Your task to perform on an android device: refresh tabs in the chrome app Image 0: 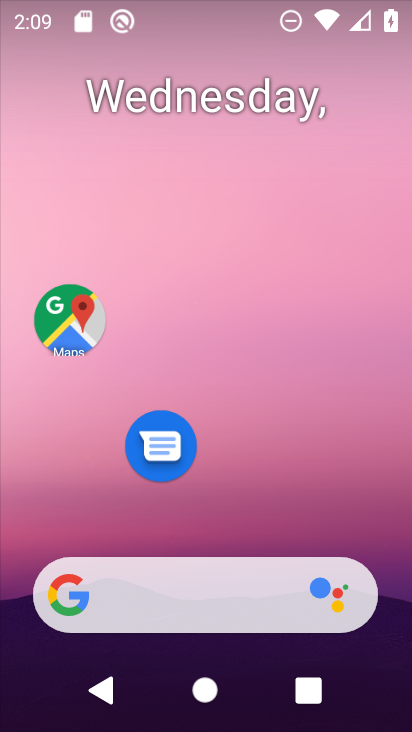
Step 0: drag from (334, 526) to (272, 83)
Your task to perform on an android device: refresh tabs in the chrome app Image 1: 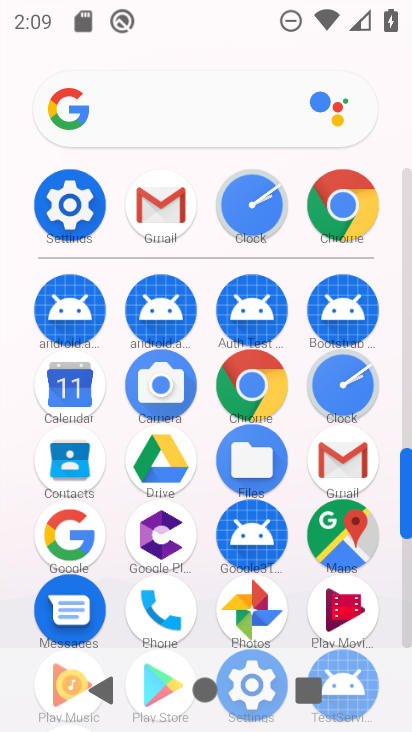
Step 1: click (338, 201)
Your task to perform on an android device: refresh tabs in the chrome app Image 2: 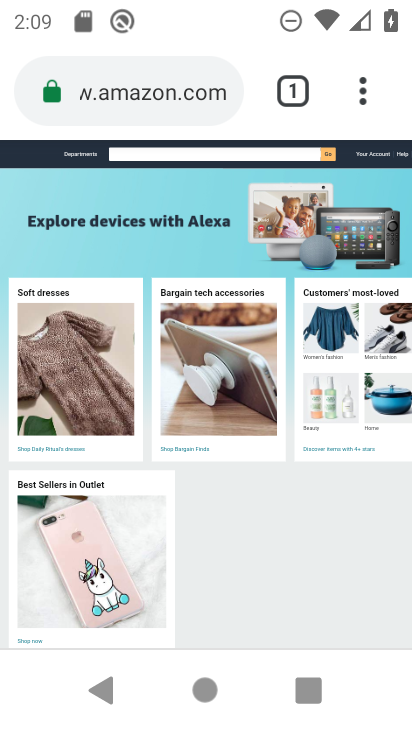
Step 2: click (353, 98)
Your task to perform on an android device: refresh tabs in the chrome app Image 3: 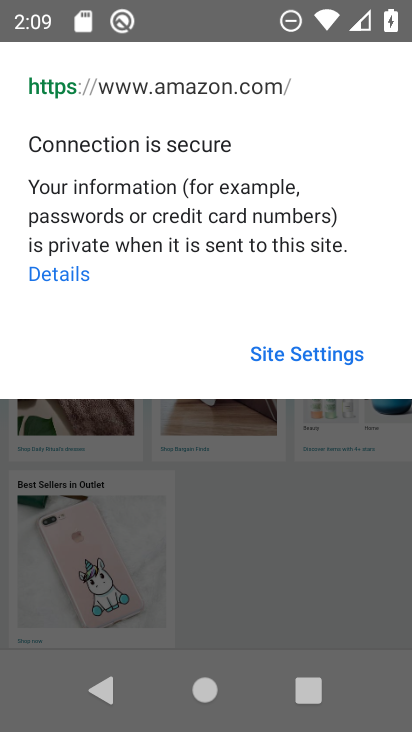
Step 3: click (164, 462)
Your task to perform on an android device: refresh tabs in the chrome app Image 4: 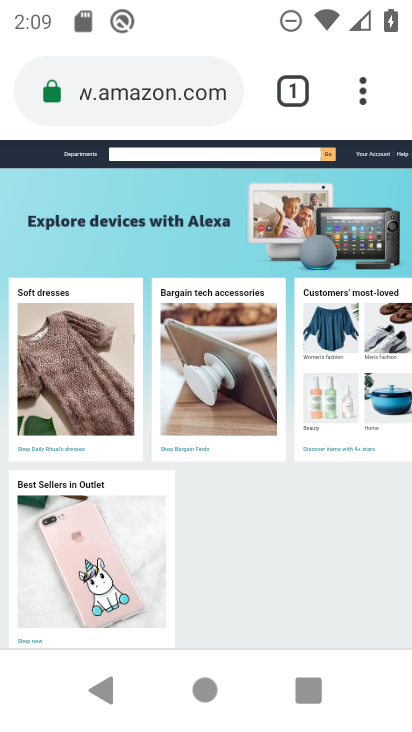
Step 4: click (357, 83)
Your task to perform on an android device: refresh tabs in the chrome app Image 5: 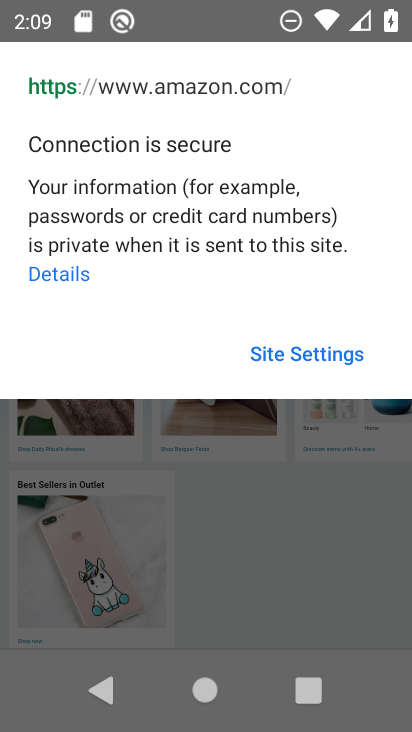
Step 5: click (219, 530)
Your task to perform on an android device: refresh tabs in the chrome app Image 6: 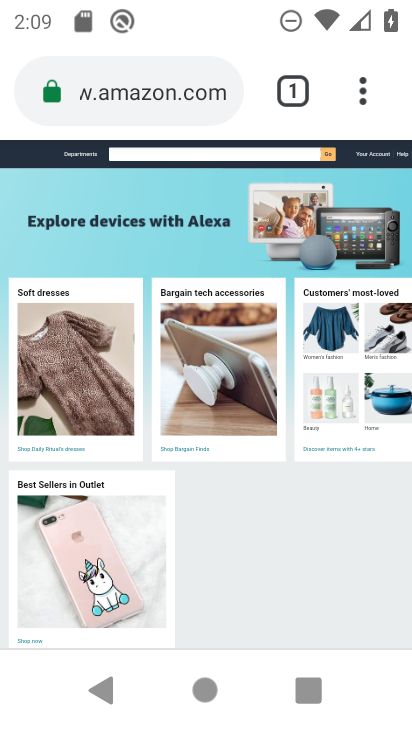
Step 6: click (374, 110)
Your task to perform on an android device: refresh tabs in the chrome app Image 7: 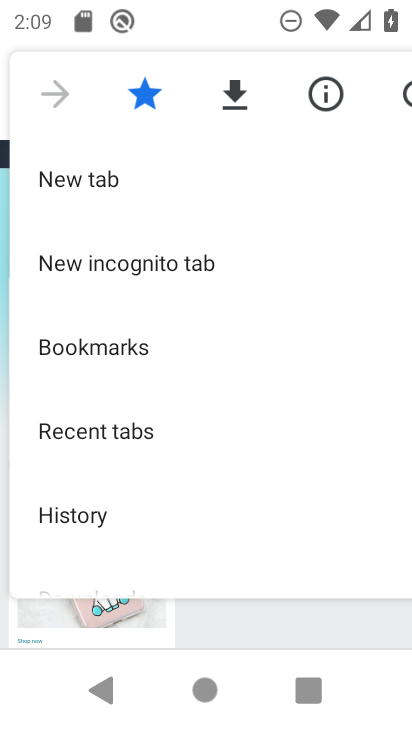
Step 7: drag from (282, 463) to (270, 368)
Your task to perform on an android device: refresh tabs in the chrome app Image 8: 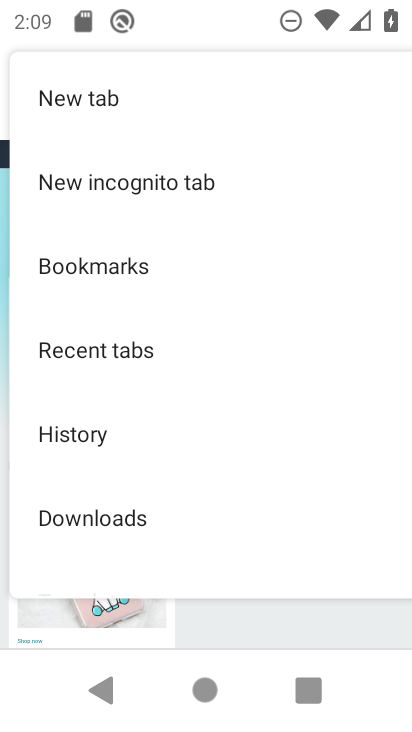
Step 8: drag from (252, 260) to (209, 707)
Your task to perform on an android device: refresh tabs in the chrome app Image 9: 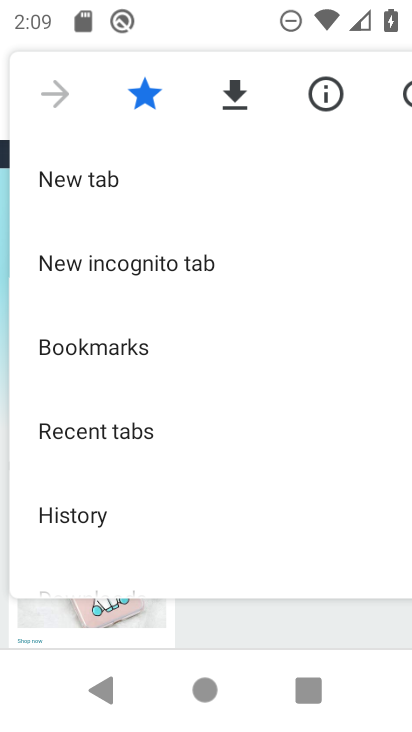
Step 9: click (398, 85)
Your task to perform on an android device: refresh tabs in the chrome app Image 10: 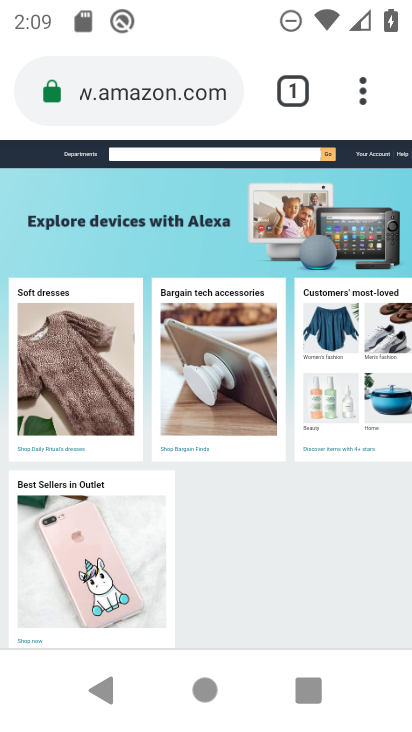
Step 10: task complete